Your task to perform on an android device: set default search engine in the chrome app Image 0: 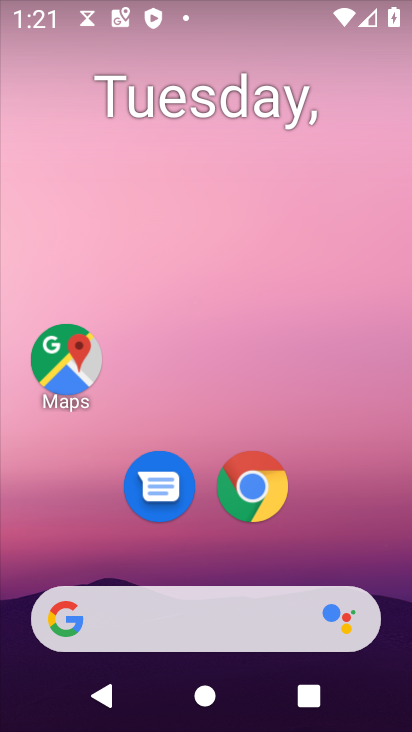
Step 0: click (282, 507)
Your task to perform on an android device: set default search engine in the chrome app Image 1: 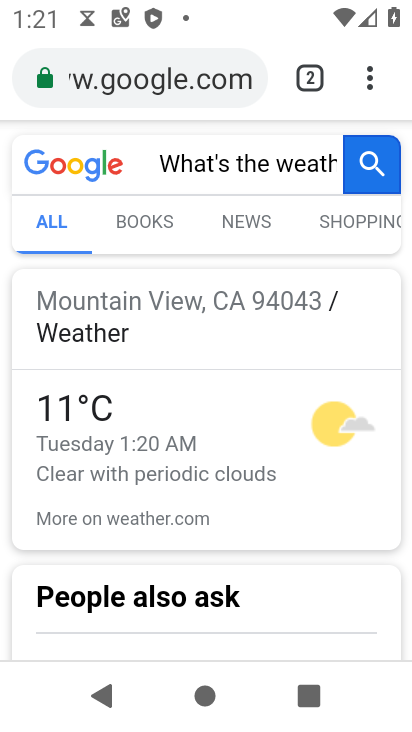
Step 1: click (370, 86)
Your task to perform on an android device: set default search engine in the chrome app Image 2: 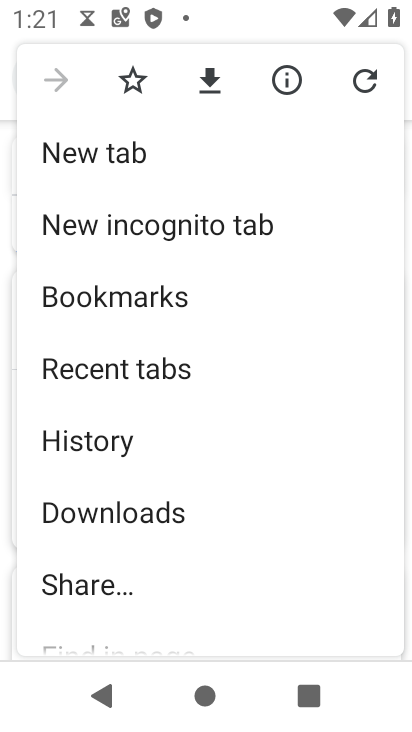
Step 2: drag from (216, 604) to (174, 88)
Your task to perform on an android device: set default search engine in the chrome app Image 3: 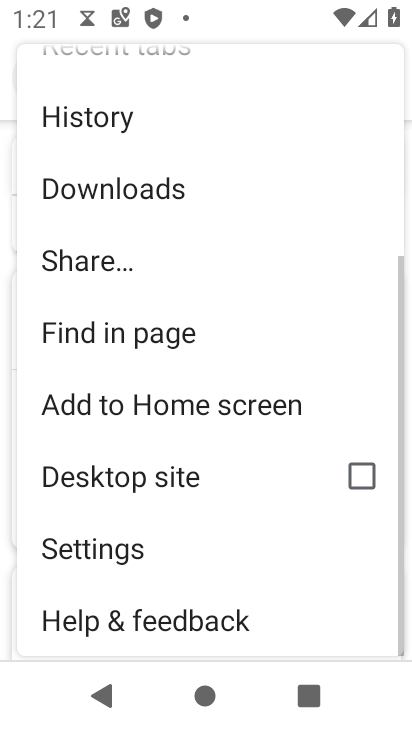
Step 3: click (166, 545)
Your task to perform on an android device: set default search engine in the chrome app Image 4: 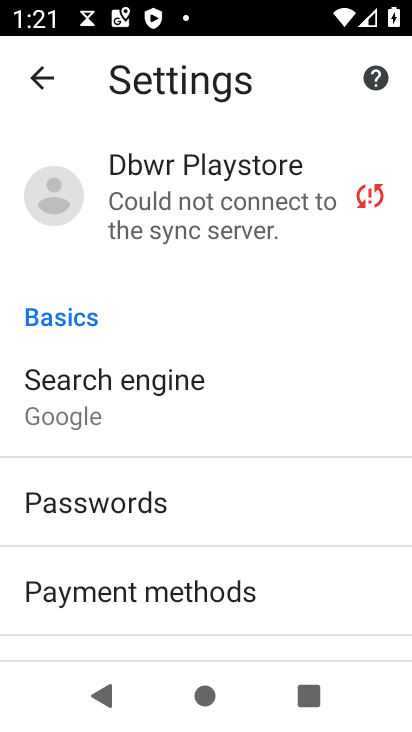
Step 4: click (171, 431)
Your task to perform on an android device: set default search engine in the chrome app Image 5: 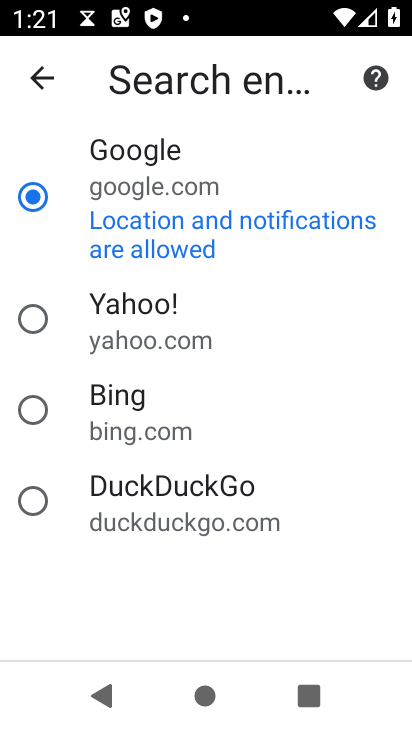
Step 5: click (194, 354)
Your task to perform on an android device: set default search engine in the chrome app Image 6: 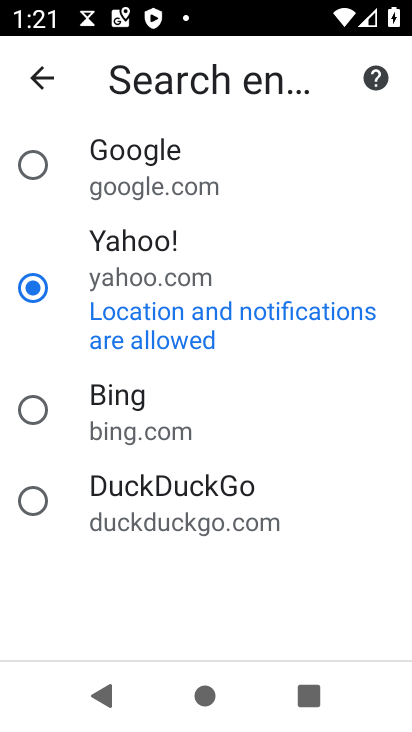
Step 6: task complete